Your task to perform on an android device: find which apps use the phone's location Image 0: 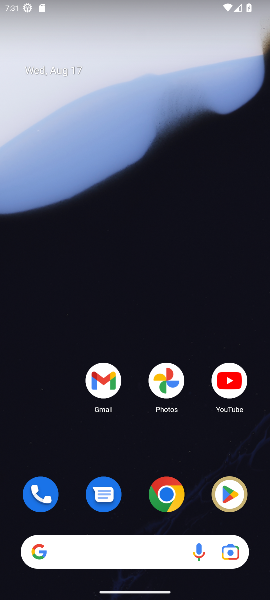
Step 0: drag from (145, 452) to (0, 54)
Your task to perform on an android device: find which apps use the phone's location Image 1: 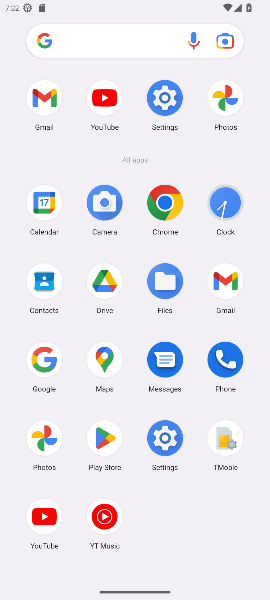
Step 1: click (167, 102)
Your task to perform on an android device: find which apps use the phone's location Image 2: 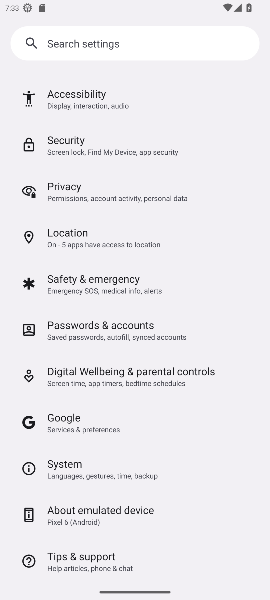
Step 2: click (44, 242)
Your task to perform on an android device: find which apps use the phone's location Image 3: 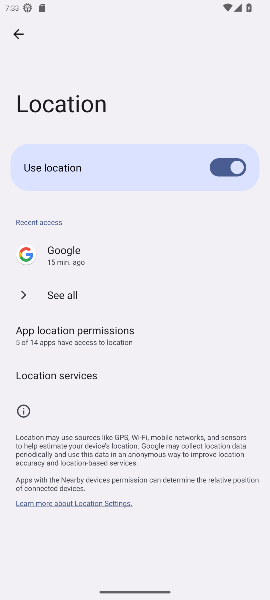
Step 3: click (68, 345)
Your task to perform on an android device: find which apps use the phone's location Image 4: 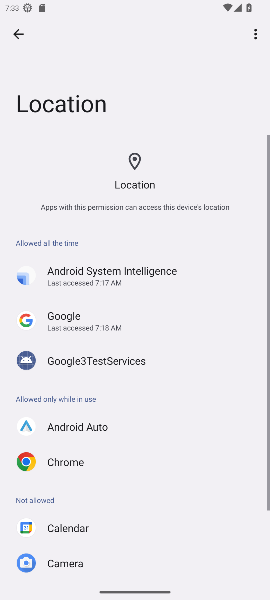
Step 4: task complete